Your task to perform on an android device: turn on airplane mode Image 0: 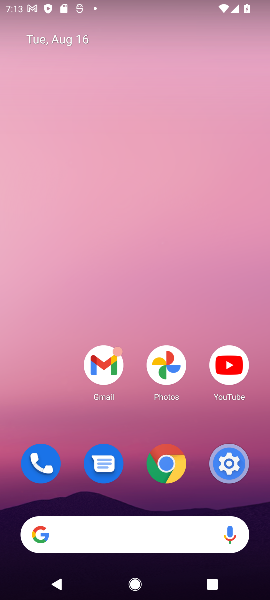
Step 0: drag from (139, 462) to (146, 28)
Your task to perform on an android device: turn on airplane mode Image 1: 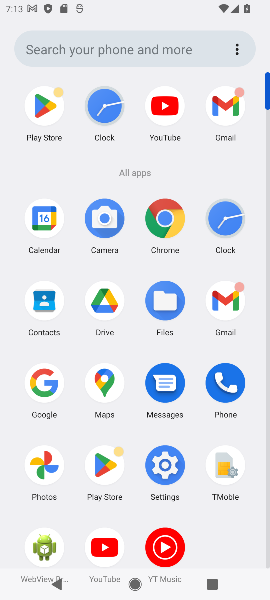
Step 1: click (167, 466)
Your task to perform on an android device: turn on airplane mode Image 2: 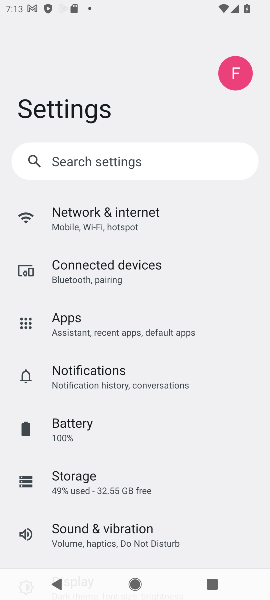
Step 2: click (117, 220)
Your task to perform on an android device: turn on airplane mode Image 3: 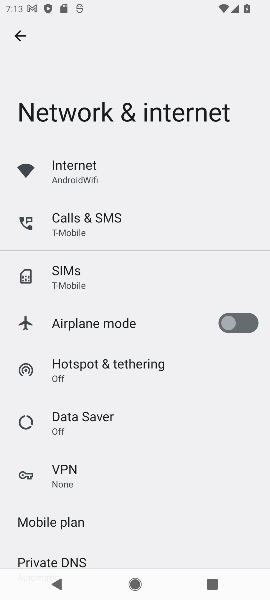
Step 3: click (241, 318)
Your task to perform on an android device: turn on airplane mode Image 4: 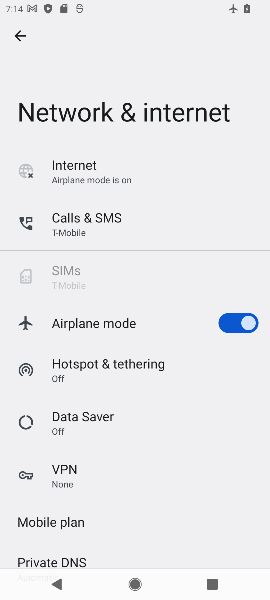
Step 4: task complete